Your task to perform on an android device: install app "HBO Max: Stream TV & Movies" Image 0: 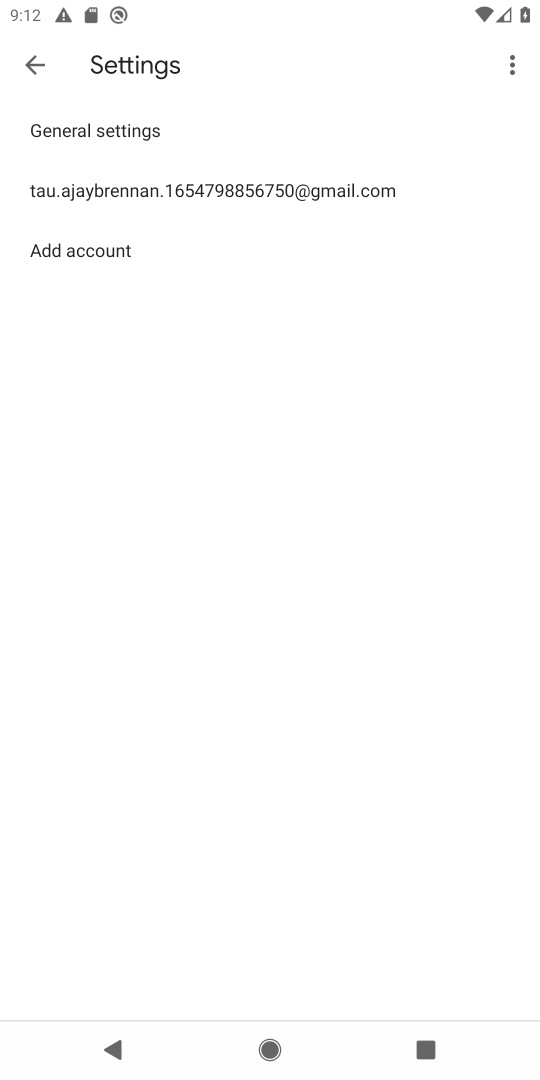
Step 0: press home button
Your task to perform on an android device: install app "HBO Max: Stream TV & Movies" Image 1: 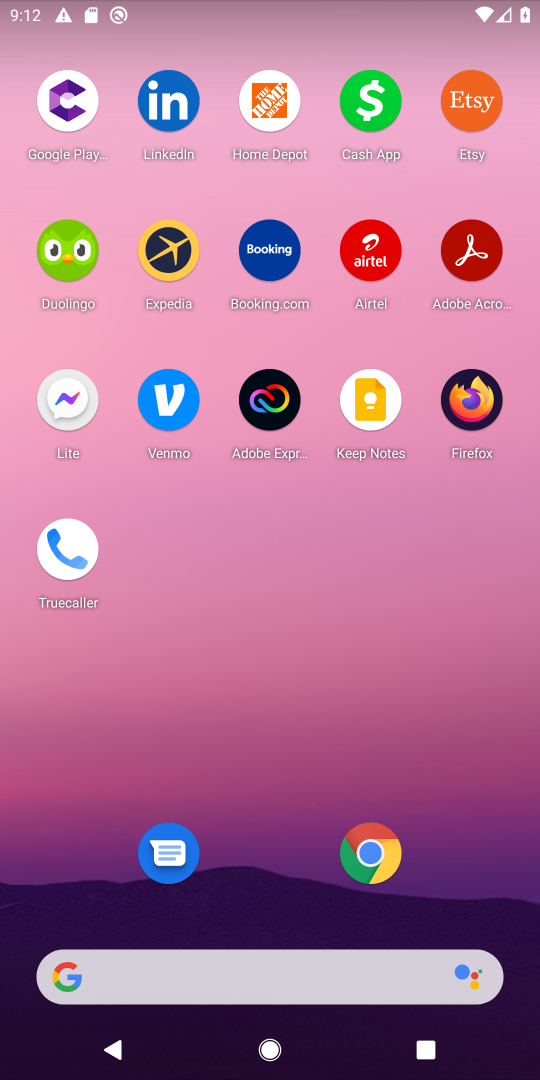
Step 1: drag from (273, 823) to (312, 234)
Your task to perform on an android device: install app "HBO Max: Stream TV & Movies" Image 2: 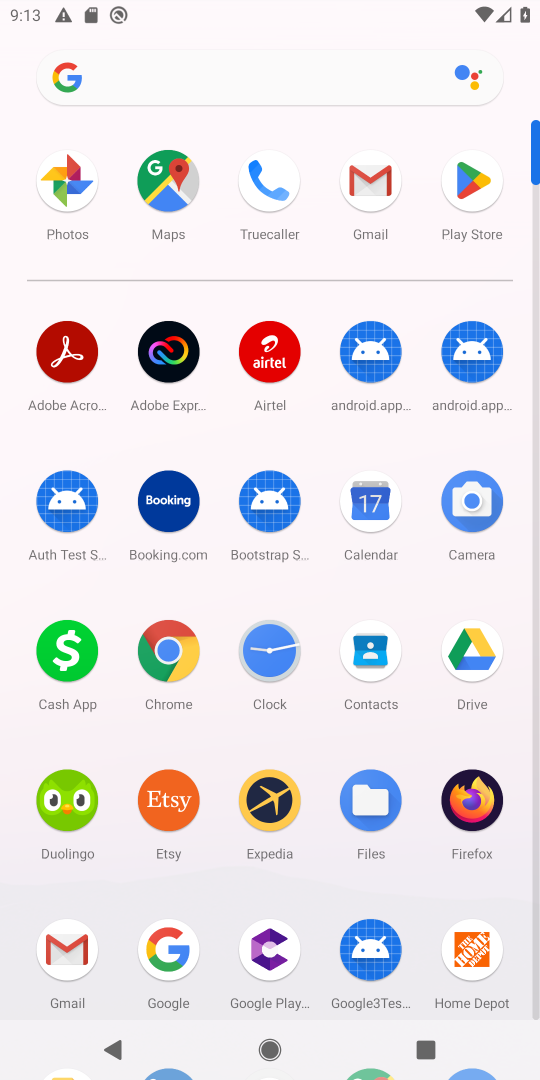
Step 2: click (452, 196)
Your task to perform on an android device: install app "HBO Max: Stream TV & Movies" Image 3: 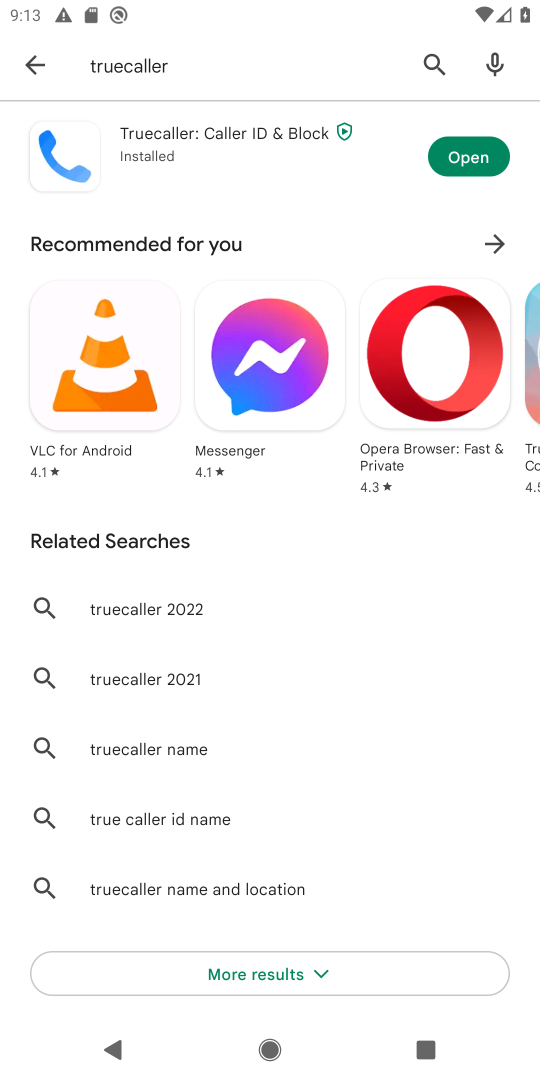
Step 3: click (432, 67)
Your task to perform on an android device: install app "HBO Max: Stream TV & Movies" Image 4: 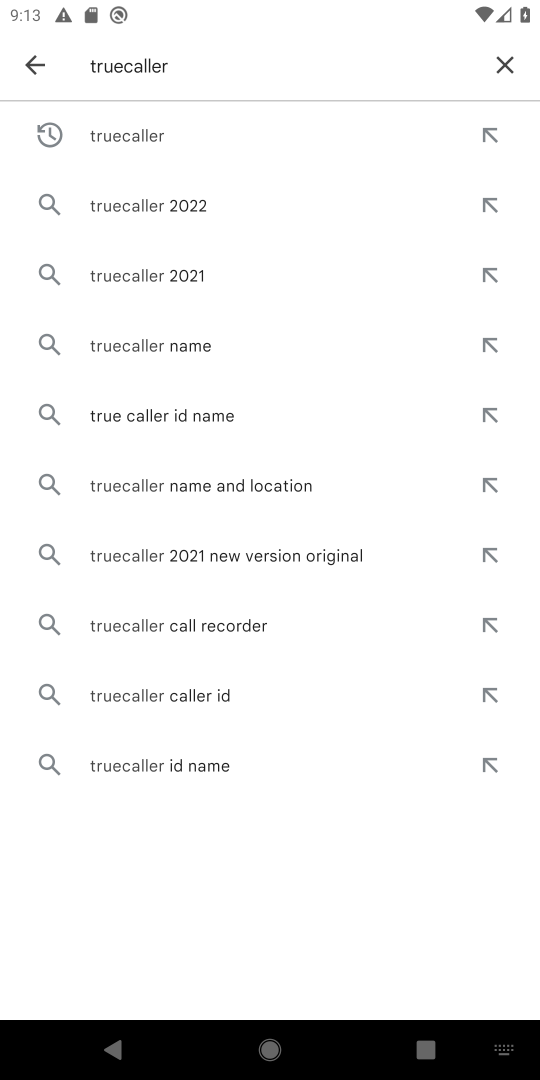
Step 4: click (513, 58)
Your task to perform on an android device: install app "HBO Max: Stream TV & Movies" Image 5: 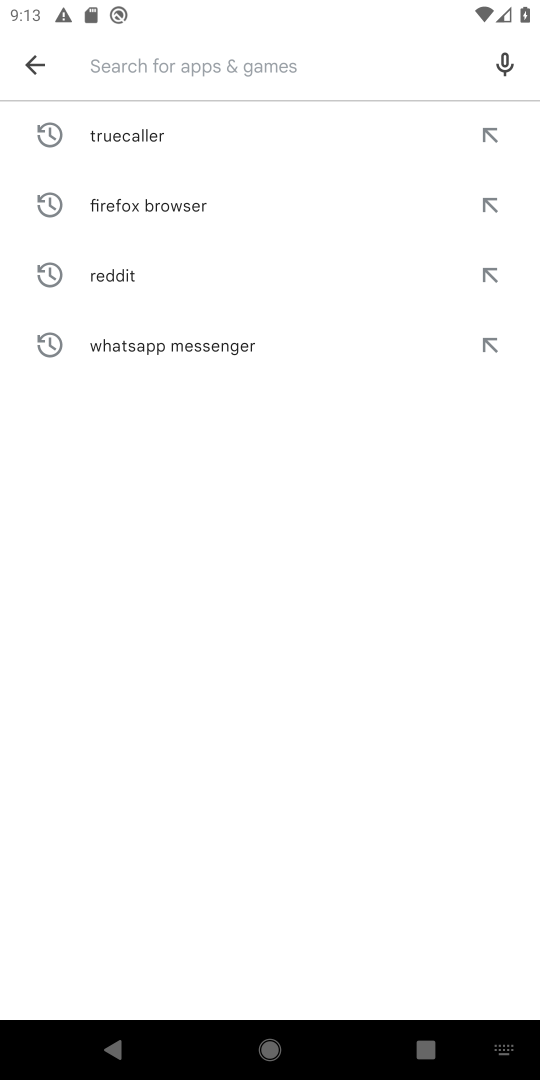
Step 5: type "HBO Max: Stream TV & Movie"
Your task to perform on an android device: install app "HBO Max: Stream TV & Movies" Image 6: 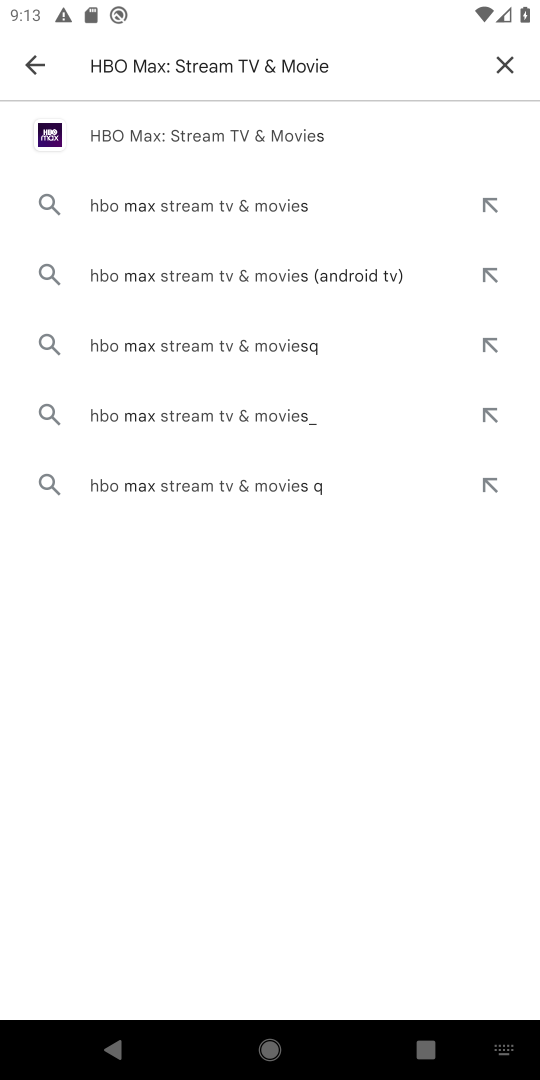
Step 6: click (132, 147)
Your task to perform on an android device: install app "HBO Max: Stream TV & Movies" Image 7: 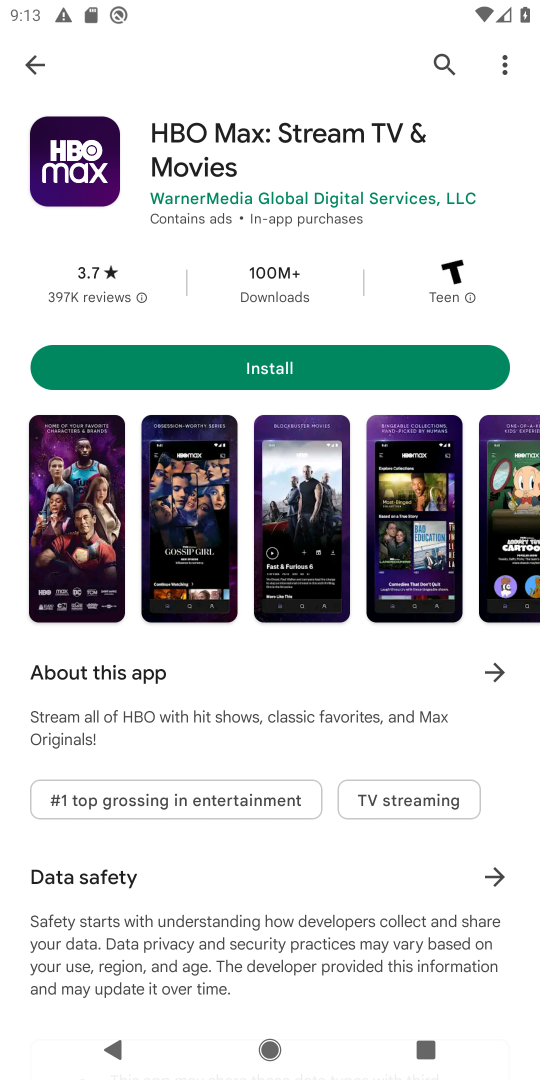
Step 7: click (209, 363)
Your task to perform on an android device: install app "HBO Max: Stream TV & Movies" Image 8: 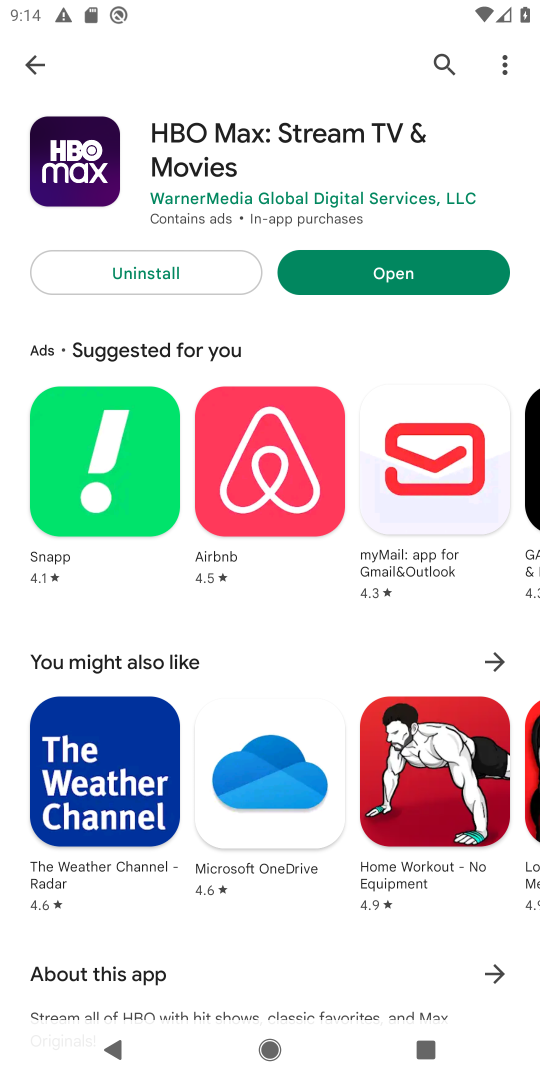
Step 8: task complete